Your task to perform on an android device: Go to Android settings Image 0: 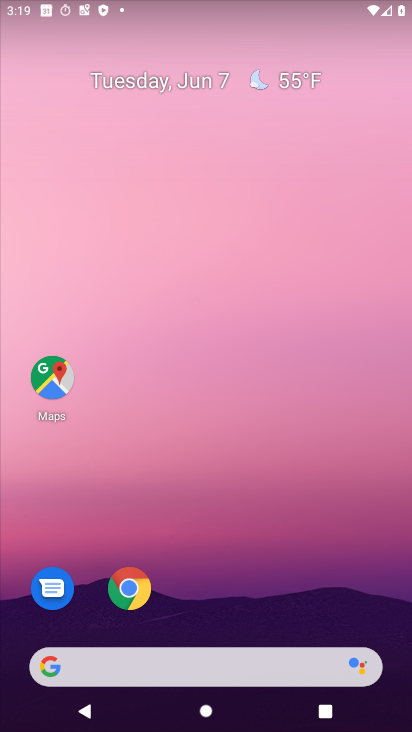
Step 0: drag from (324, 596) to (341, 6)
Your task to perform on an android device: Go to Android settings Image 1: 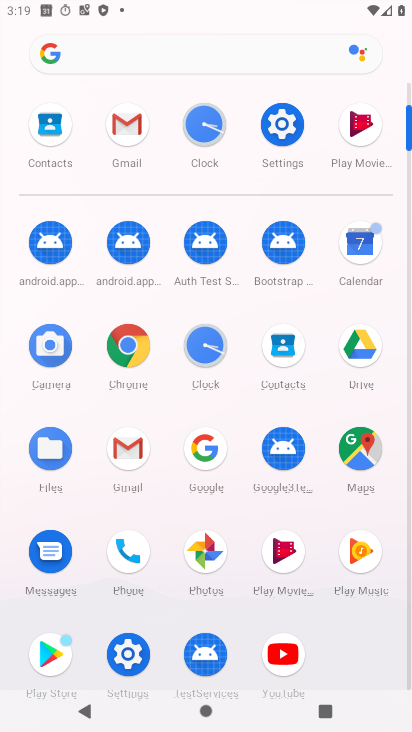
Step 1: click (284, 131)
Your task to perform on an android device: Go to Android settings Image 2: 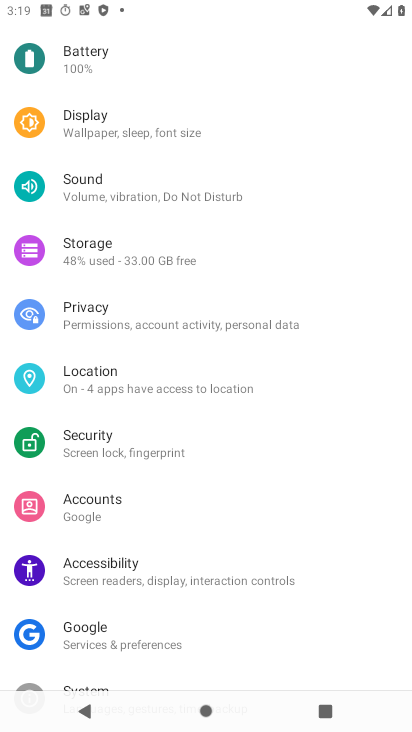
Step 2: task complete